Your task to perform on an android device: toggle improve location accuracy Image 0: 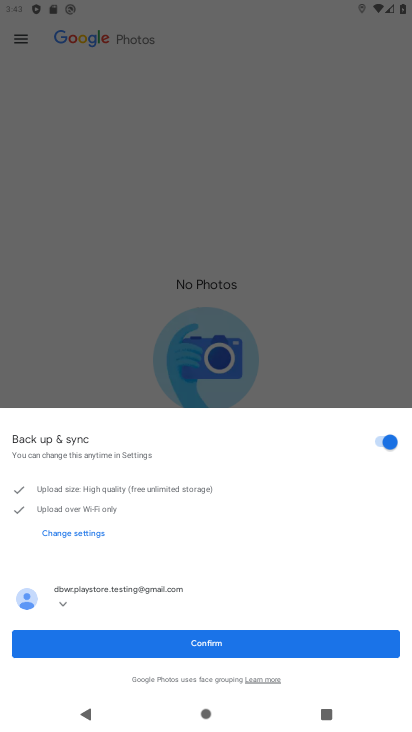
Step 0: press home button
Your task to perform on an android device: toggle improve location accuracy Image 1: 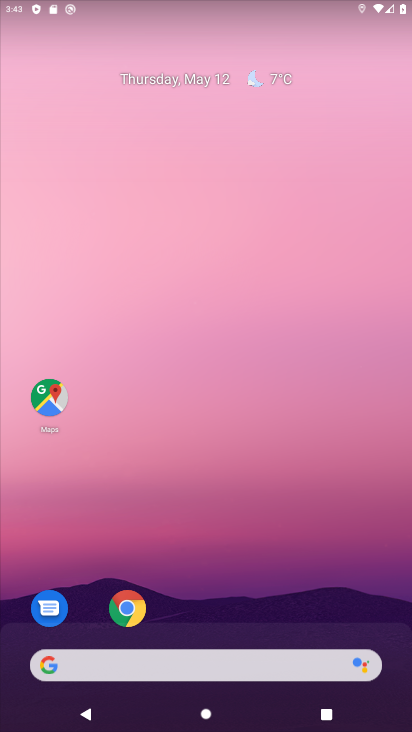
Step 1: drag from (223, 614) to (102, 75)
Your task to perform on an android device: toggle improve location accuracy Image 2: 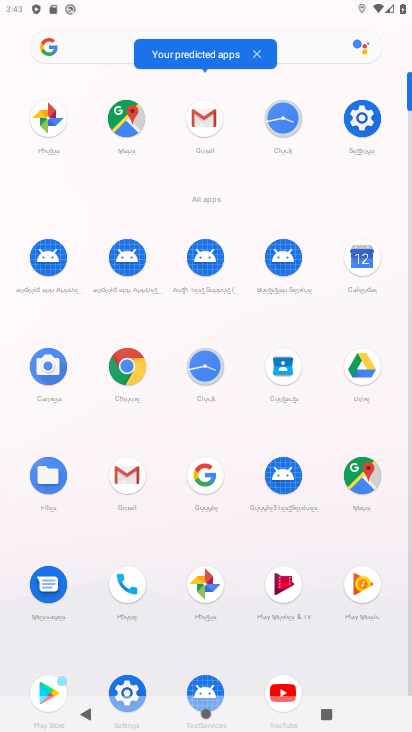
Step 2: drag from (154, 631) to (147, 316)
Your task to perform on an android device: toggle improve location accuracy Image 3: 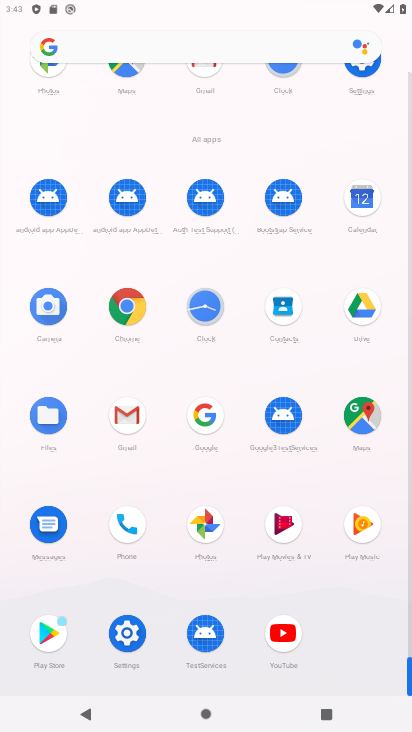
Step 3: click (126, 638)
Your task to perform on an android device: toggle improve location accuracy Image 4: 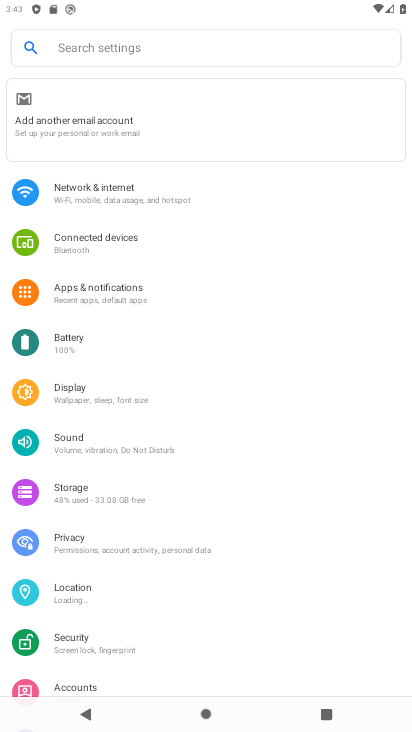
Step 4: click (56, 590)
Your task to perform on an android device: toggle improve location accuracy Image 5: 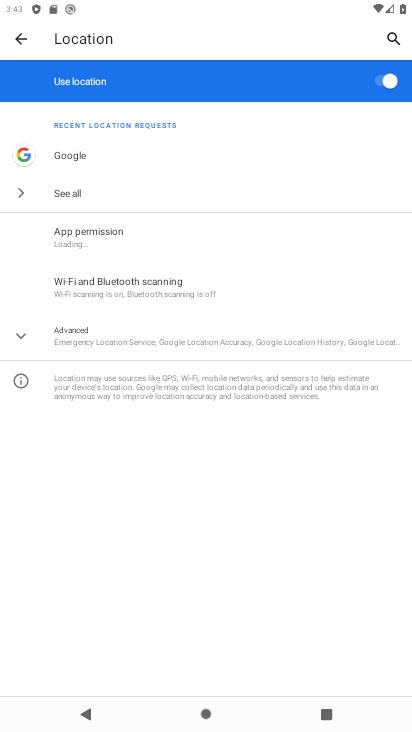
Step 5: click (100, 331)
Your task to perform on an android device: toggle improve location accuracy Image 6: 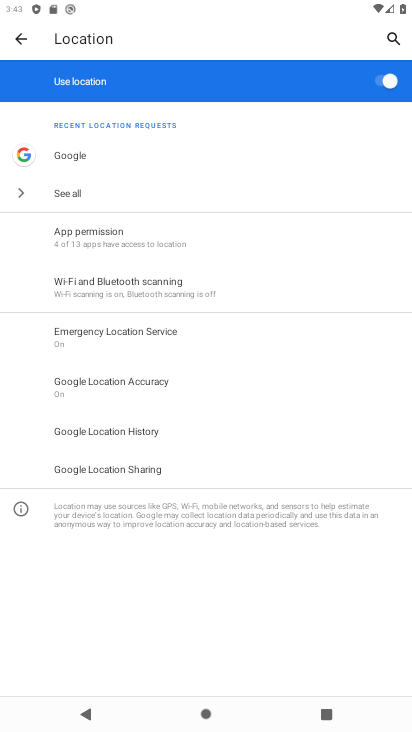
Step 6: click (104, 381)
Your task to perform on an android device: toggle improve location accuracy Image 7: 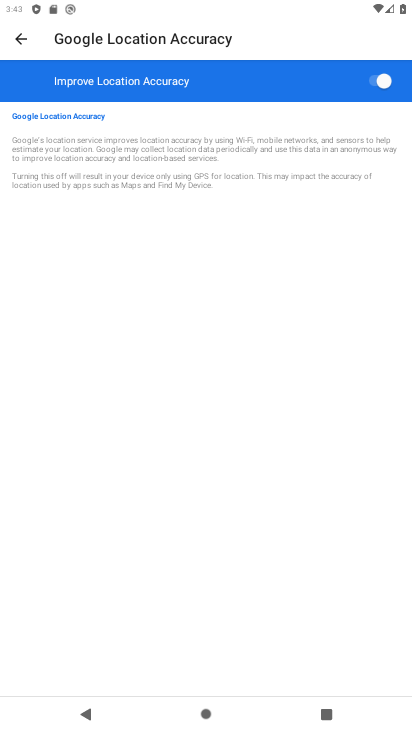
Step 7: click (368, 79)
Your task to perform on an android device: toggle improve location accuracy Image 8: 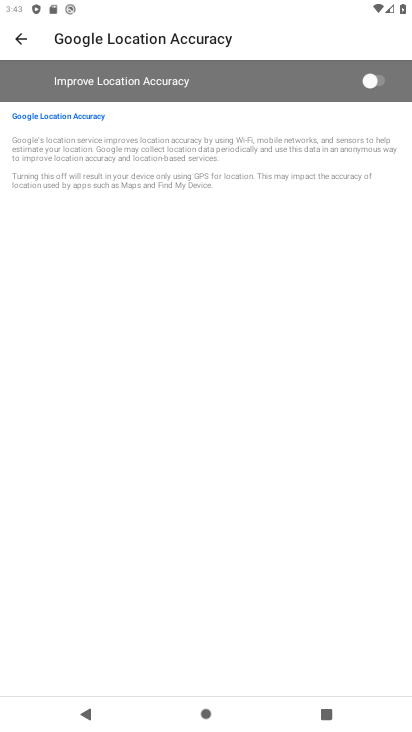
Step 8: task complete